Your task to perform on an android device: change the clock style Image 0: 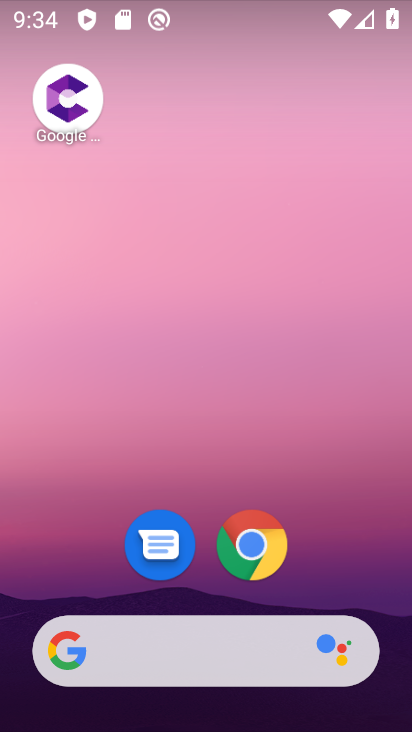
Step 0: drag from (324, 550) to (323, 120)
Your task to perform on an android device: change the clock style Image 1: 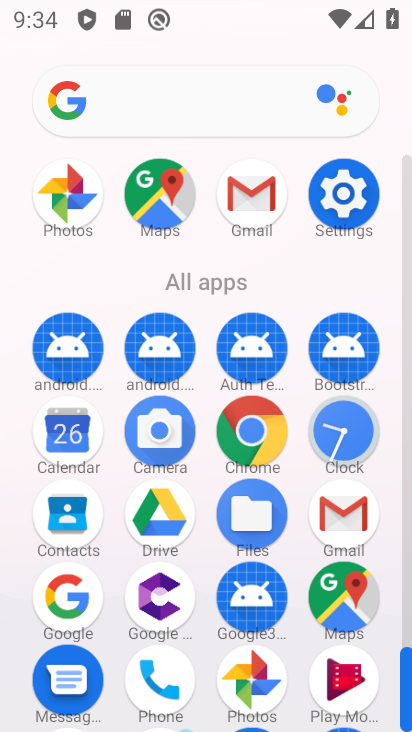
Step 1: click (339, 431)
Your task to perform on an android device: change the clock style Image 2: 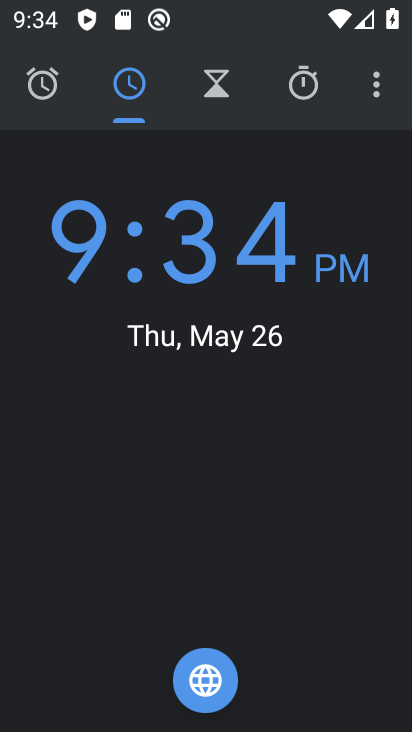
Step 2: click (371, 72)
Your task to perform on an android device: change the clock style Image 3: 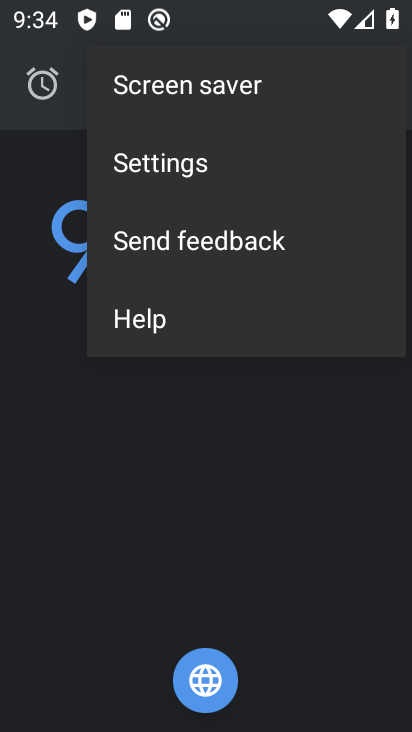
Step 3: click (171, 154)
Your task to perform on an android device: change the clock style Image 4: 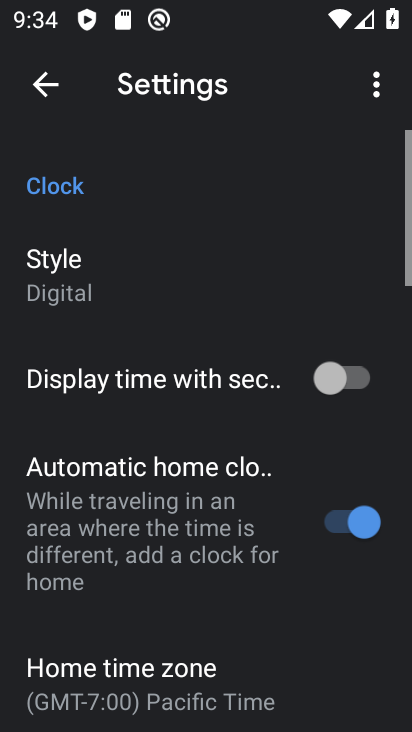
Step 4: click (120, 298)
Your task to perform on an android device: change the clock style Image 5: 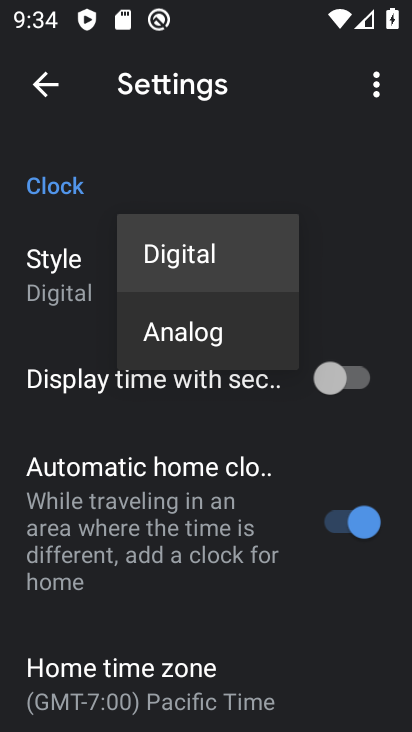
Step 5: click (179, 322)
Your task to perform on an android device: change the clock style Image 6: 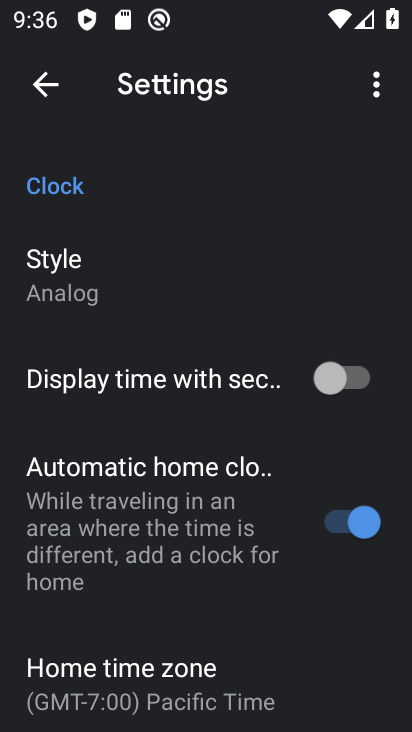
Step 6: task complete